Your task to perform on an android device: turn off translation in the chrome app Image 0: 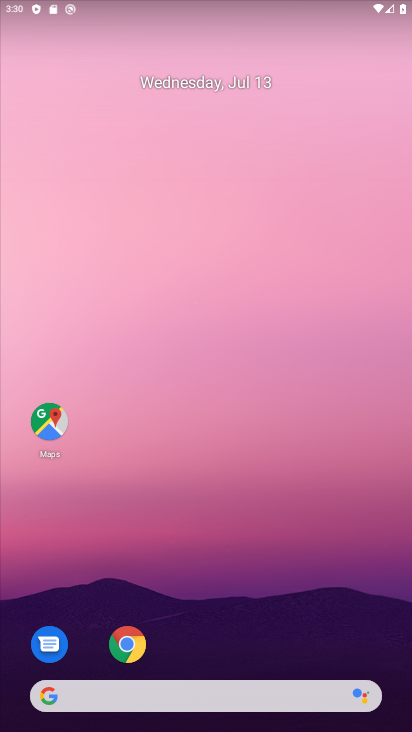
Step 0: click (120, 642)
Your task to perform on an android device: turn off translation in the chrome app Image 1: 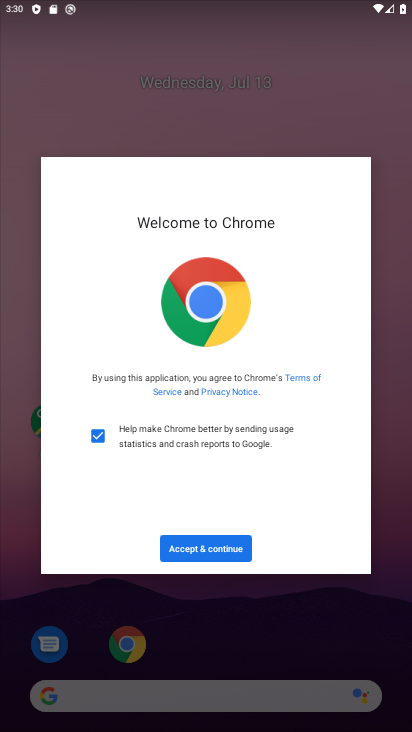
Step 1: click (187, 552)
Your task to perform on an android device: turn off translation in the chrome app Image 2: 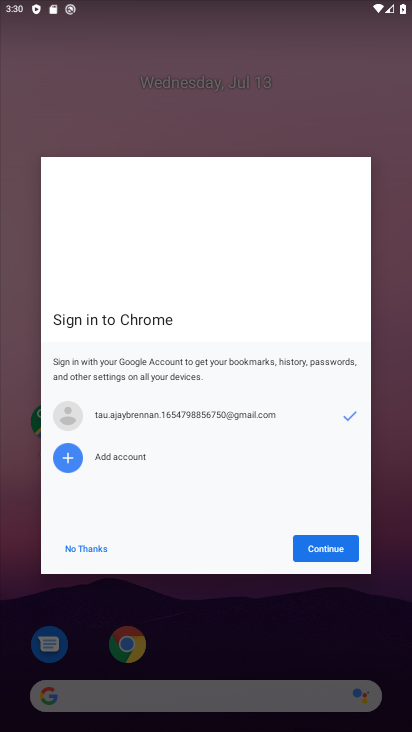
Step 2: click (304, 543)
Your task to perform on an android device: turn off translation in the chrome app Image 3: 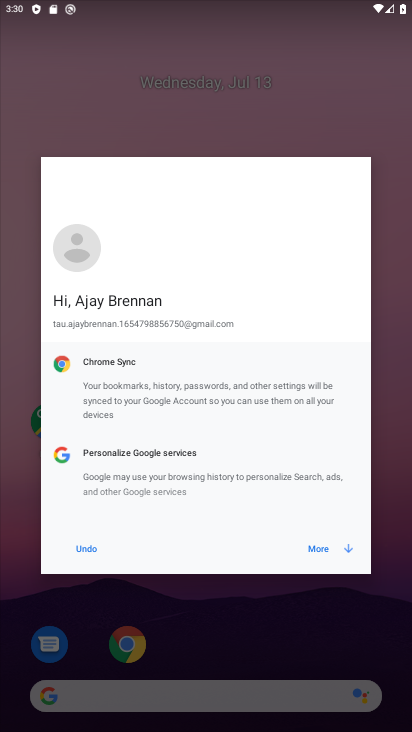
Step 3: click (304, 543)
Your task to perform on an android device: turn off translation in the chrome app Image 4: 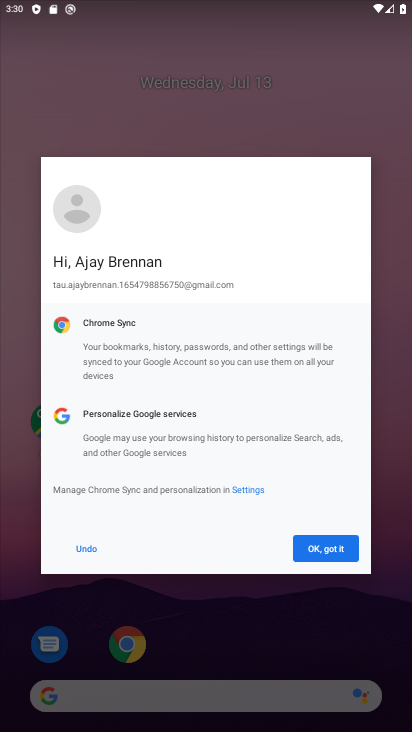
Step 4: click (304, 543)
Your task to perform on an android device: turn off translation in the chrome app Image 5: 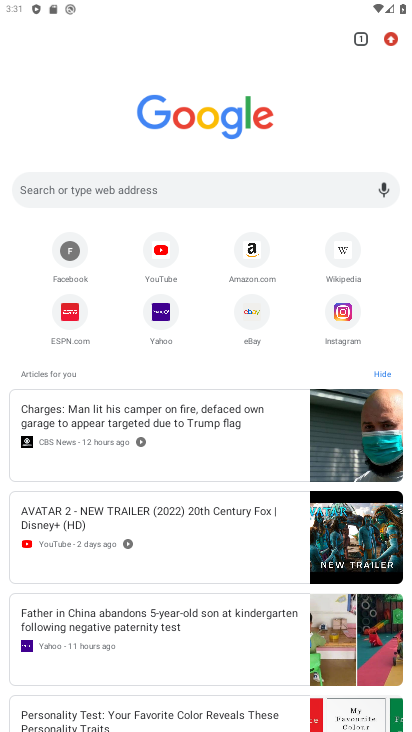
Step 5: click (389, 43)
Your task to perform on an android device: turn off translation in the chrome app Image 6: 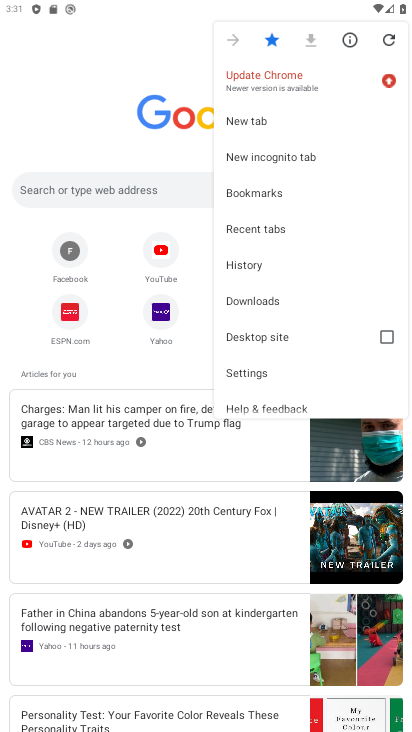
Step 6: click (236, 367)
Your task to perform on an android device: turn off translation in the chrome app Image 7: 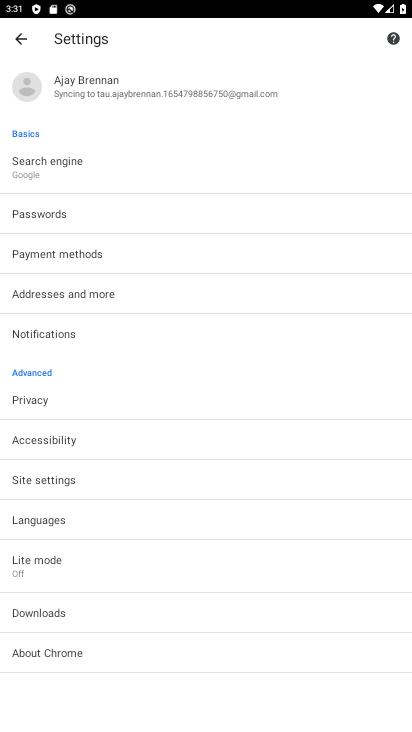
Step 7: click (53, 525)
Your task to perform on an android device: turn off translation in the chrome app Image 8: 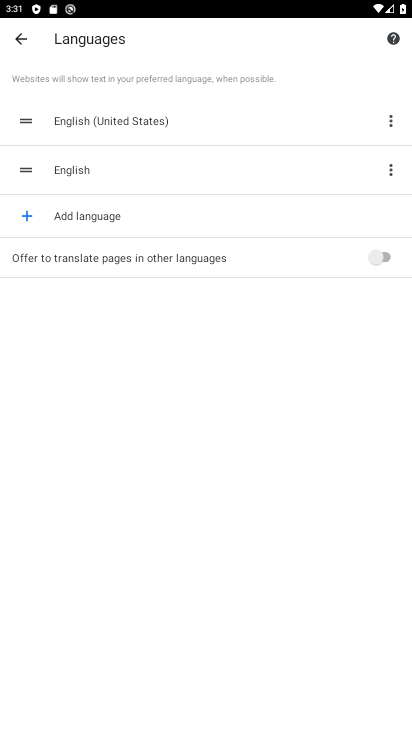
Step 8: task complete